Your task to perform on an android device: See recent photos Image 0: 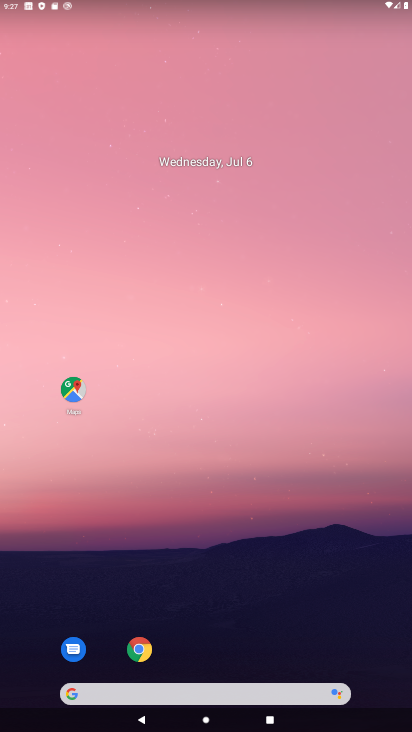
Step 0: drag from (258, 689) to (259, 118)
Your task to perform on an android device: See recent photos Image 1: 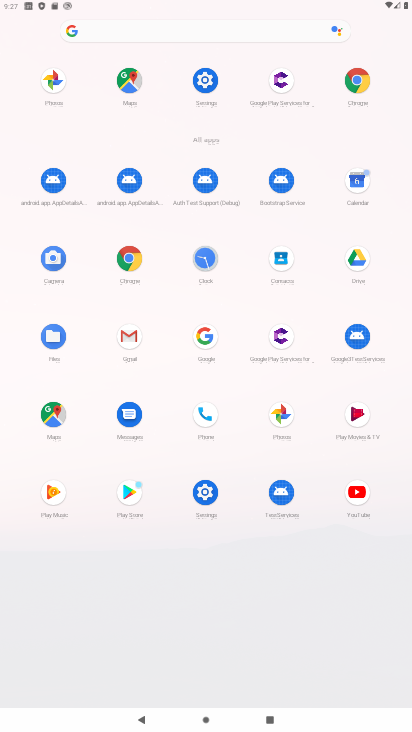
Step 1: click (283, 413)
Your task to perform on an android device: See recent photos Image 2: 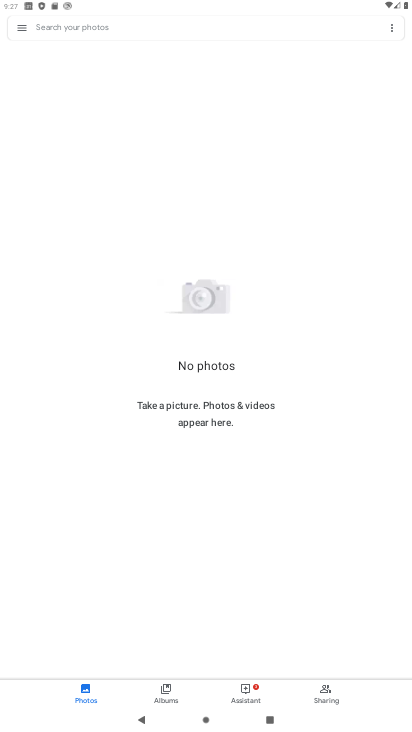
Step 2: task complete